Your task to perform on an android device: change the clock display to analog Image 0: 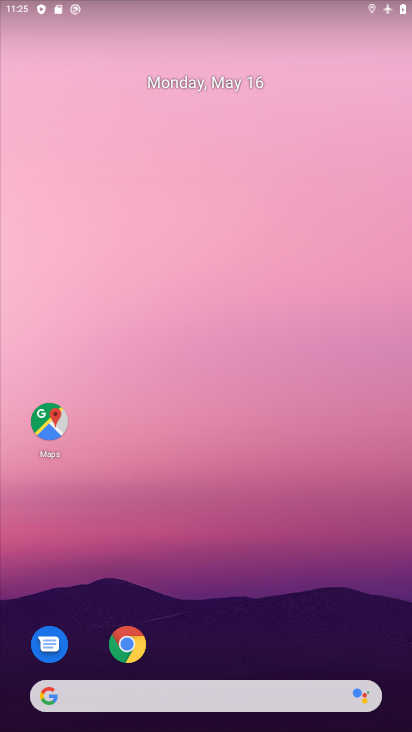
Step 0: drag from (254, 642) to (195, 235)
Your task to perform on an android device: change the clock display to analog Image 1: 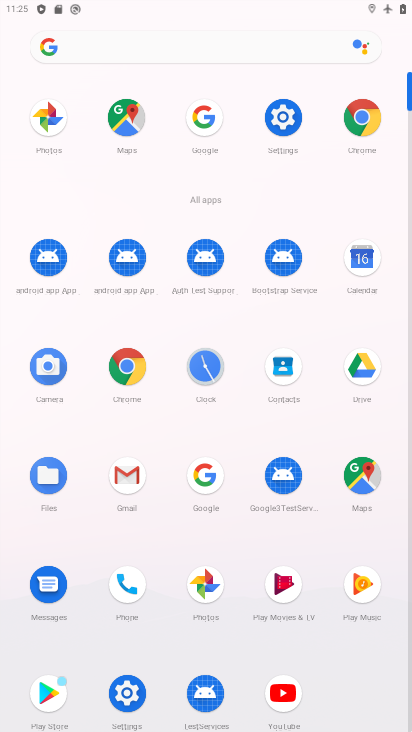
Step 1: click (275, 117)
Your task to perform on an android device: change the clock display to analog Image 2: 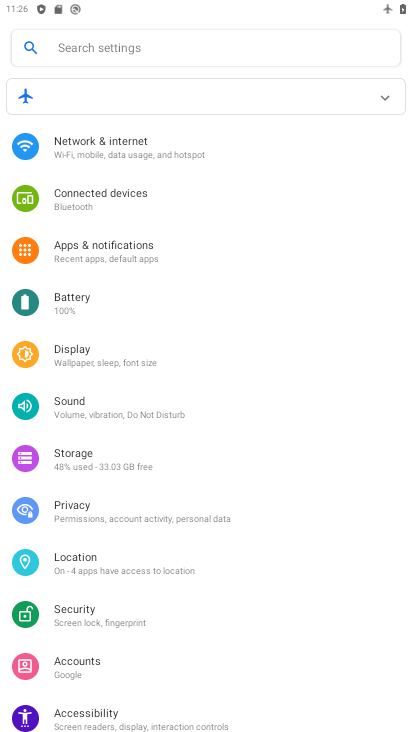
Step 2: press home button
Your task to perform on an android device: change the clock display to analog Image 3: 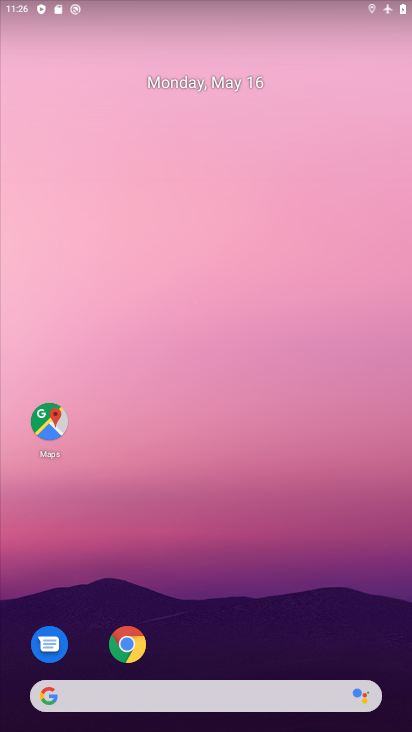
Step 3: drag from (271, 614) to (269, 216)
Your task to perform on an android device: change the clock display to analog Image 4: 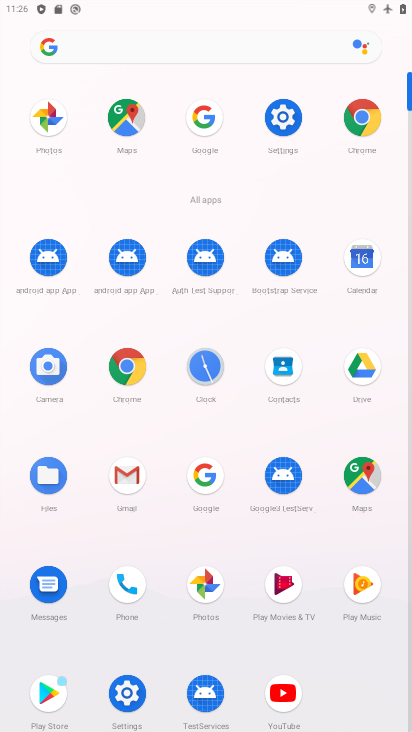
Step 4: click (188, 356)
Your task to perform on an android device: change the clock display to analog Image 5: 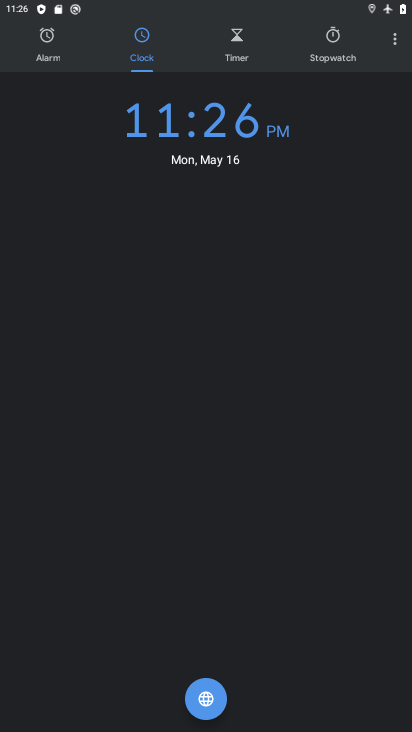
Step 5: click (392, 41)
Your task to perform on an android device: change the clock display to analog Image 6: 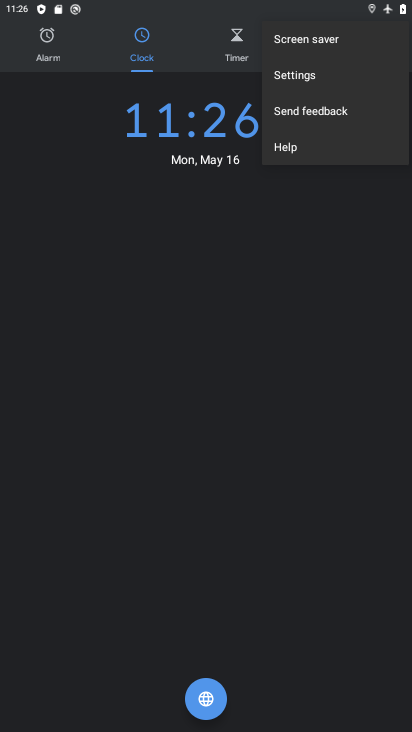
Step 6: click (317, 78)
Your task to perform on an android device: change the clock display to analog Image 7: 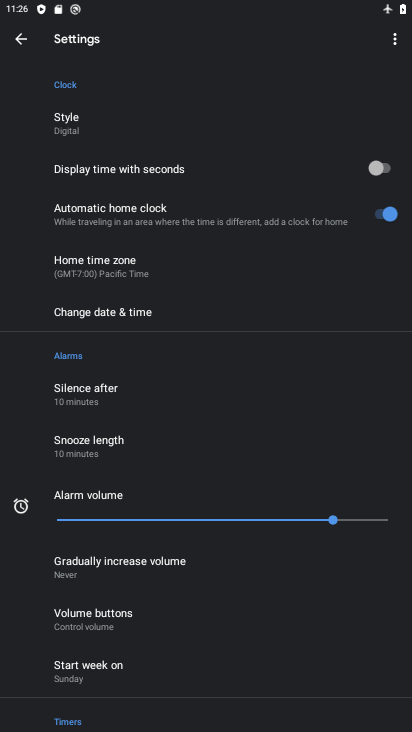
Step 7: click (70, 129)
Your task to perform on an android device: change the clock display to analog Image 8: 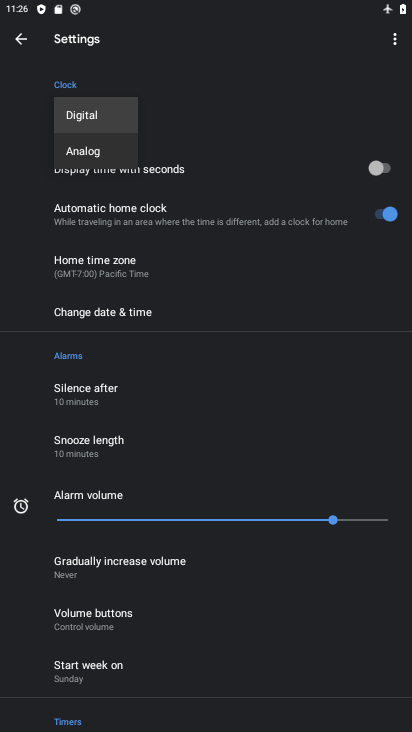
Step 8: click (106, 148)
Your task to perform on an android device: change the clock display to analog Image 9: 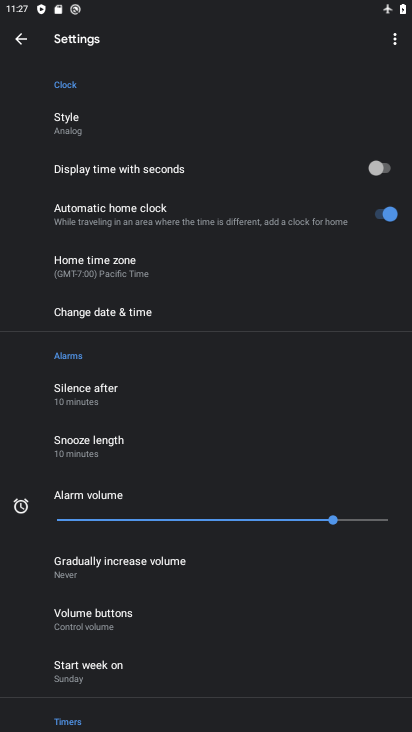
Step 9: task complete